Your task to perform on an android device: Go to Wikipedia Image 0: 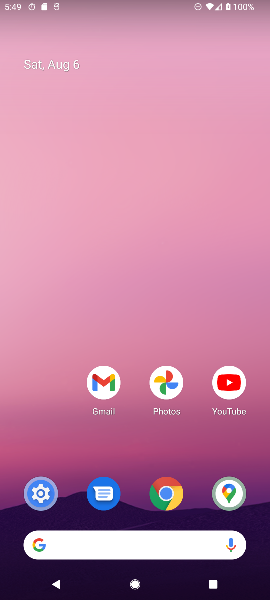
Step 0: drag from (163, 415) to (132, 300)
Your task to perform on an android device: Go to Wikipedia Image 1: 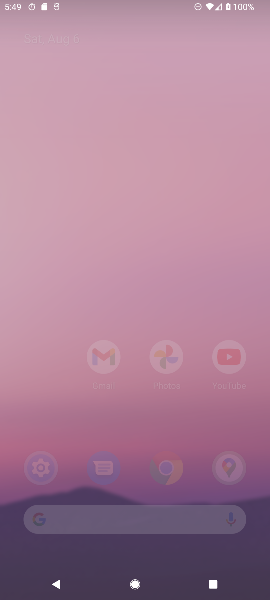
Step 1: click (160, 273)
Your task to perform on an android device: Go to Wikipedia Image 2: 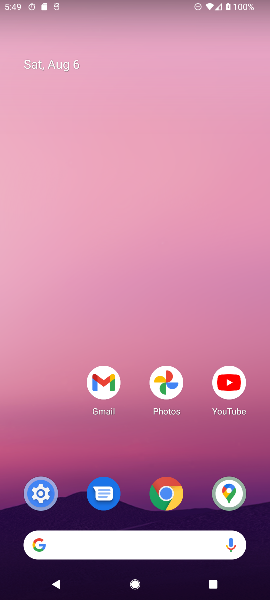
Step 2: drag from (150, 416) to (118, 278)
Your task to perform on an android device: Go to Wikipedia Image 3: 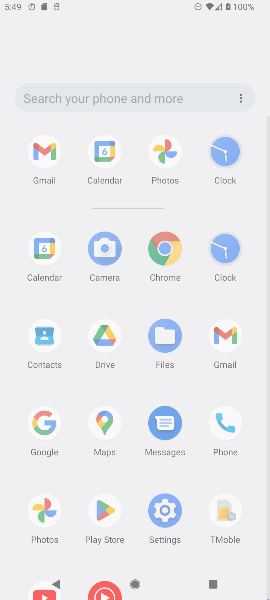
Step 3: drag from (179, 398) to (134, 165)
Your task to perform on an android device: Go to Wikipedia Image 4: 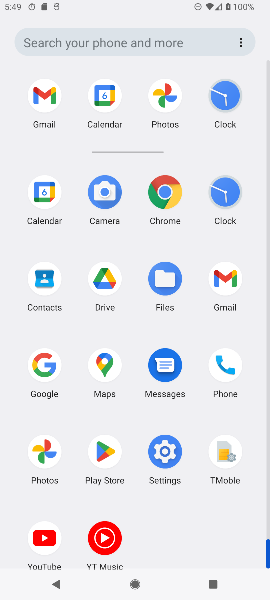
Step 4: drag from (142, 394) to (90, 132)
Your task to perform on an android device: Go to Wikipedia Image 5: 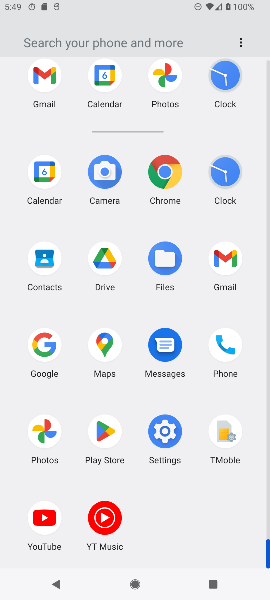
Step 5: click (158, 179)
Your task to perform on an android device: Go to Wikipedia Image 6: 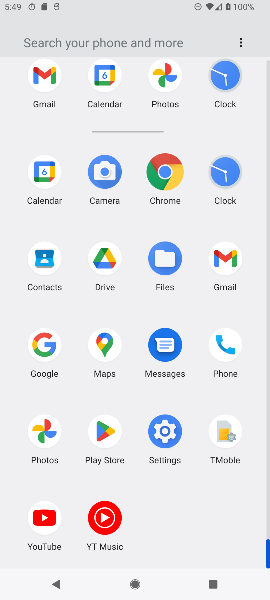
Step 6: click (158, 176)
Your task to perform on an android device: Go to Wikipedia Image 7: 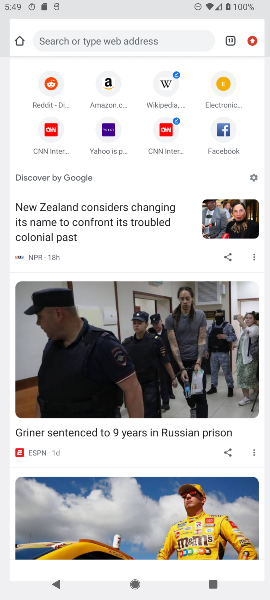
Step 7: click (159, 175)
Your task to perform on an android device: Go to Wikipedia Image 8: 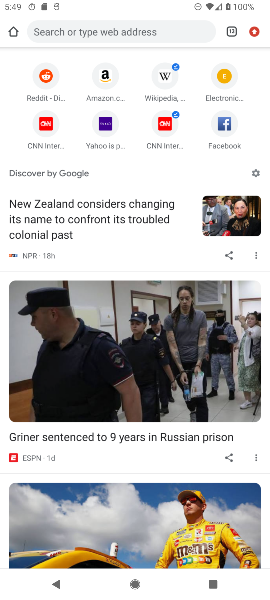
Step 8: click (161, 177)
Your task to perform on an android device: Go to Wikipedia Image 9: 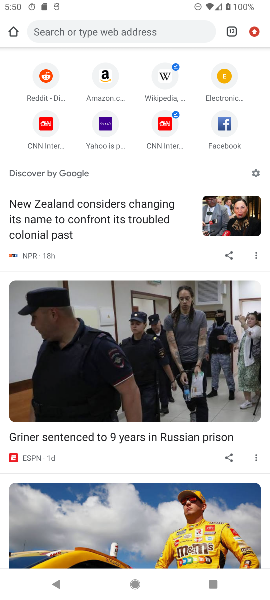
Step 9: drag from (255, 31) to (221, 508)
Your task to perform on an android device: Go to Wikipedia Image 10: 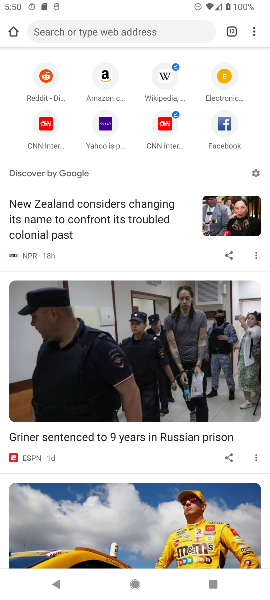
Step 10: click (160, 77)
Your task to perform on an android device: Go to Wikipedia Image 11: 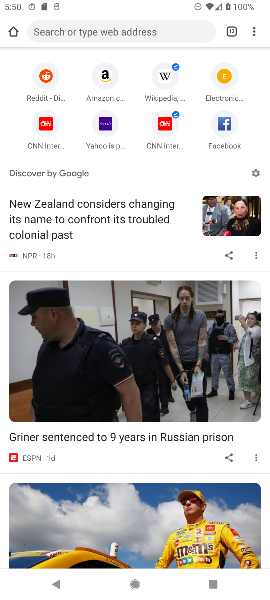
Step 11: click (165, 77)
Your task to perform on an android device: Go to Wikipedia Image 12: 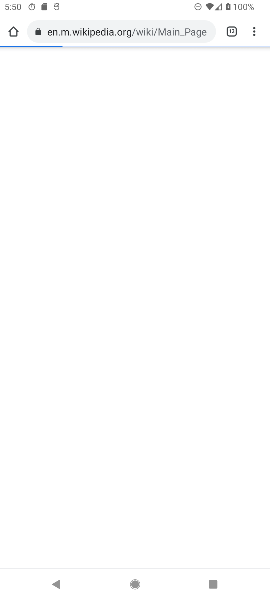
Step 12: click (167, 76)
Your task to perform on an android device: Go to Wikipedia Image 13: 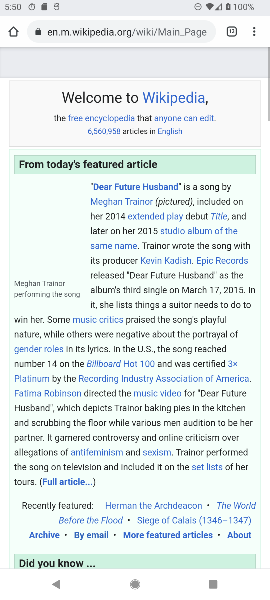
Step 13: click (165, 79)
Your task to perform on an android device: Go to Wikipedia Image 14: 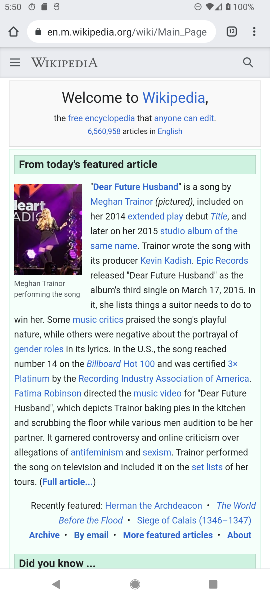
Step 14: task complete